Your task to perform on an android device: turn off sleep mode Image 0: 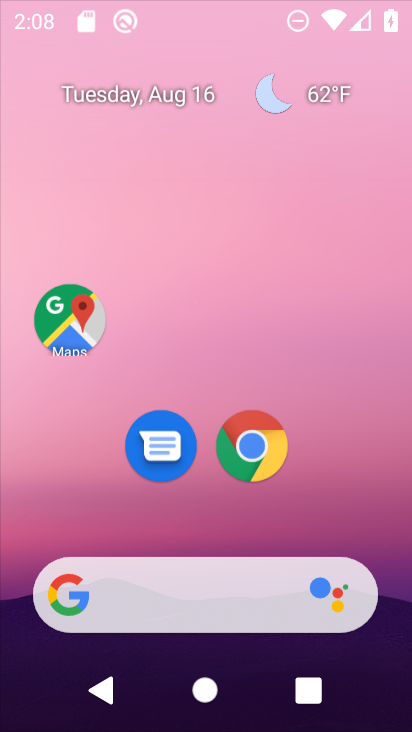
Step 0: press home button
Your task to perform on an android device: turn off sleep mode Image 1: 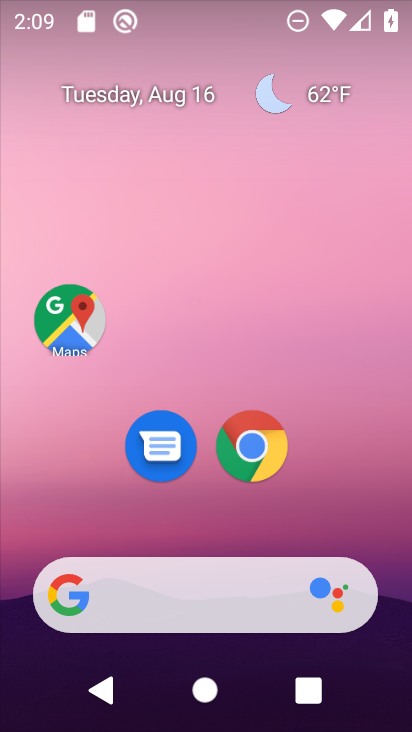
Step 1: drag from (216, 531) to (225, 0)
Your task to perform on an android device: turn off sleep mode Image 2: 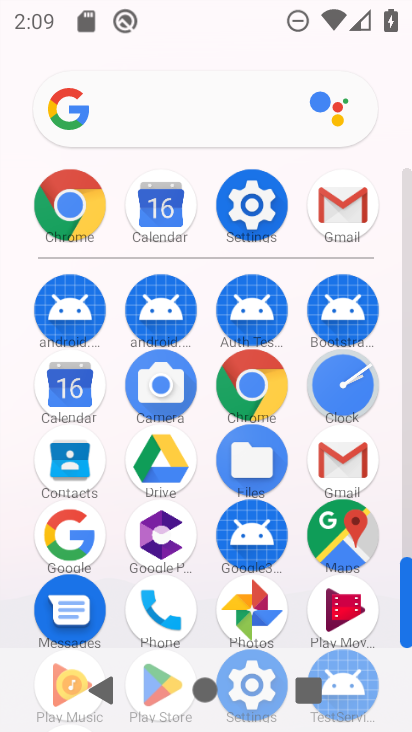
Step 2: click (252, 199)
Your task to perform on an android device: turn off sleep mode Image 3: 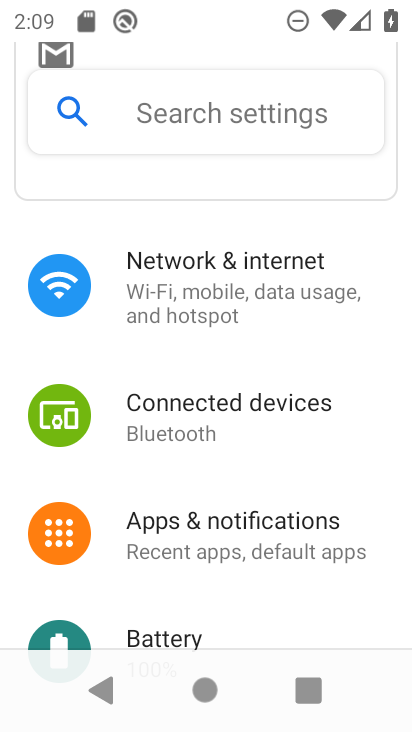
Step 3: drag from (217, 601) to (247, 44)
Your task to perform on an android device: turn off sleep mode Image 4: 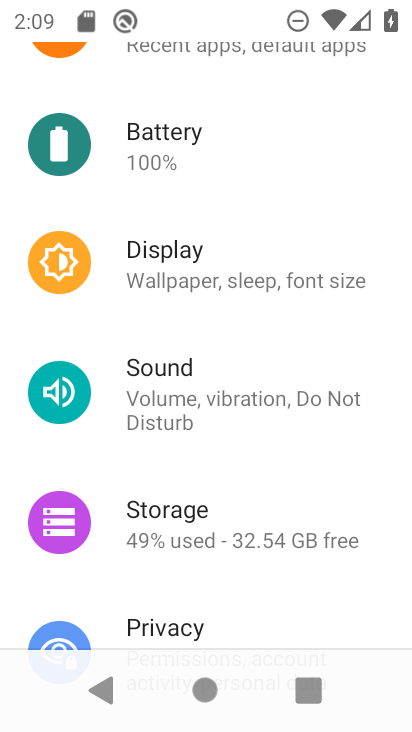
Step 4: click (157, 251)
Your task to perform on an android device: turn off sleep mode Image 5: 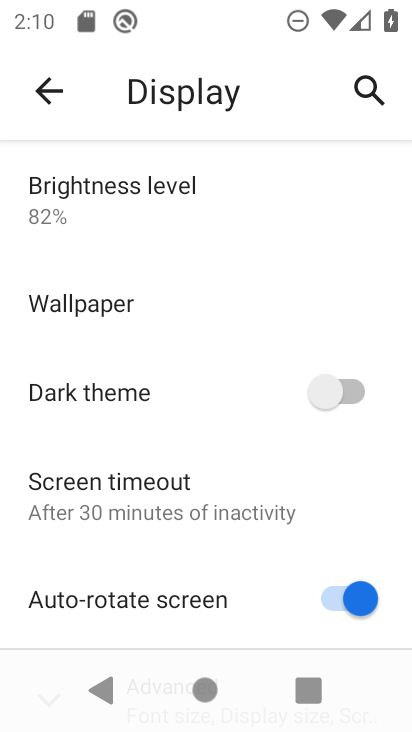
Step 5: task complete